Your task to perform on an android device: See recent photos Image 0: 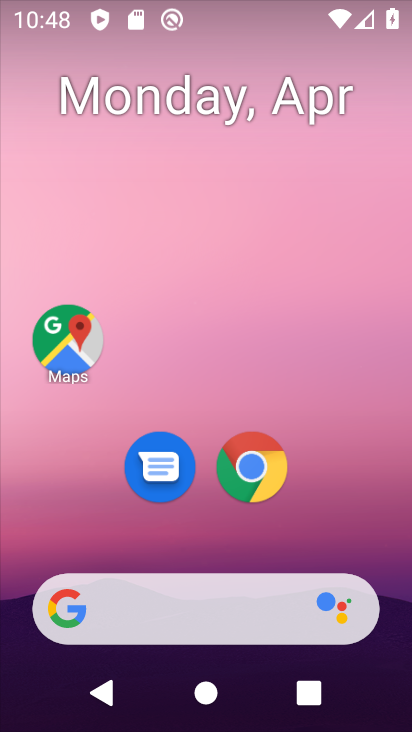
Step 0: drag from (289, 510) to (305, 137)
Your task to perform on an android device: See recent photos Image 1: 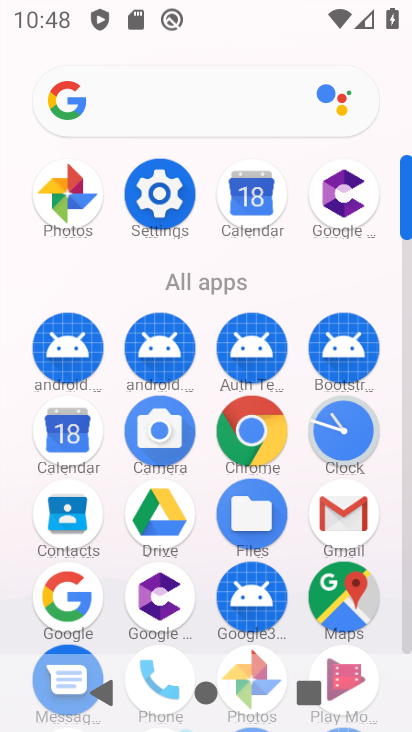
Step 1: drag from (291, 569) to (294, 335)
Your task to perform on an android device: See recent photos Image 2: 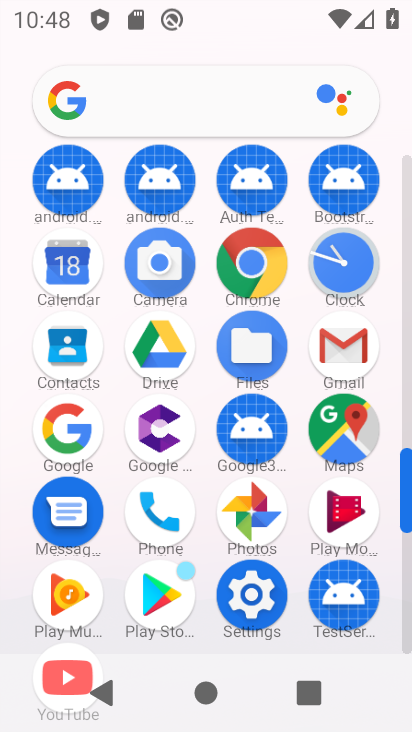
Step 2: click (270, 503)
Your task to perform on an android device: See recent photos Image 3: 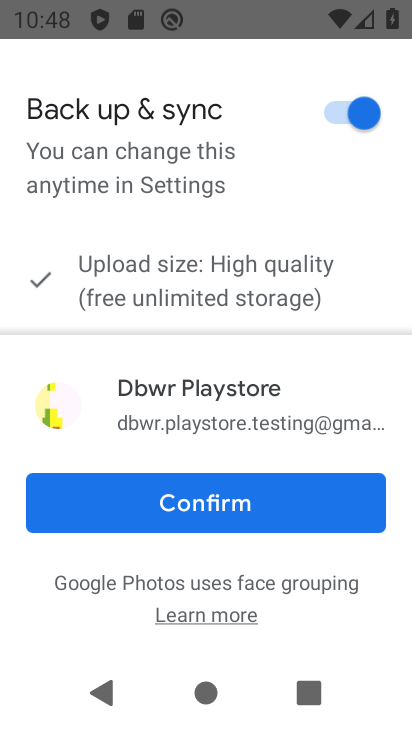
Step 3: click (300, 522)
Your task to perform on an android device: See recent photos Image 4: 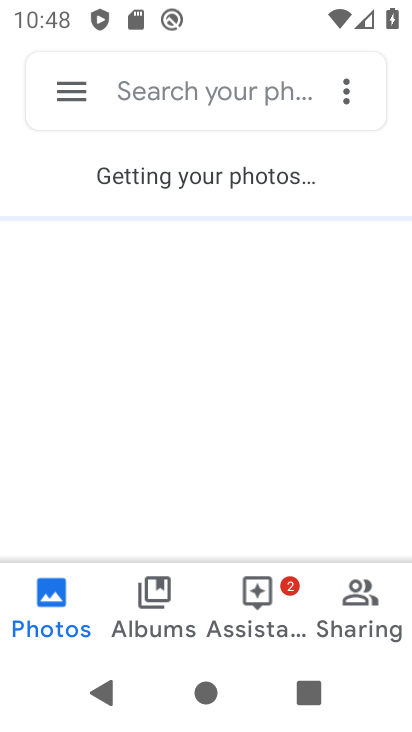
Step 4: click (45, 612)
Your task to perform on an android device: See recent photos Image 5: 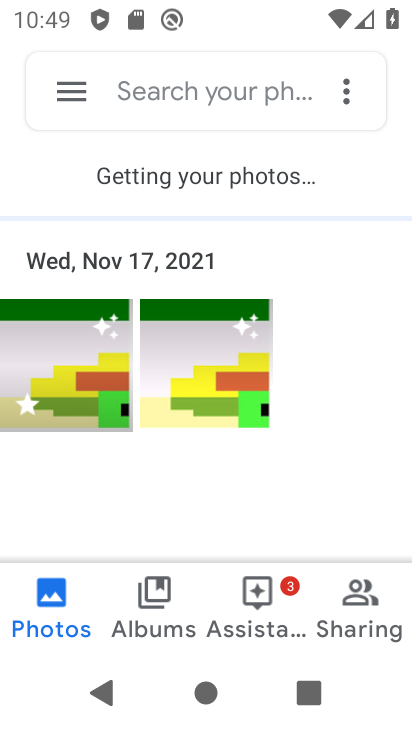
Step 5: task complete